Your task to perform on an android device: show emergency info Image 0: 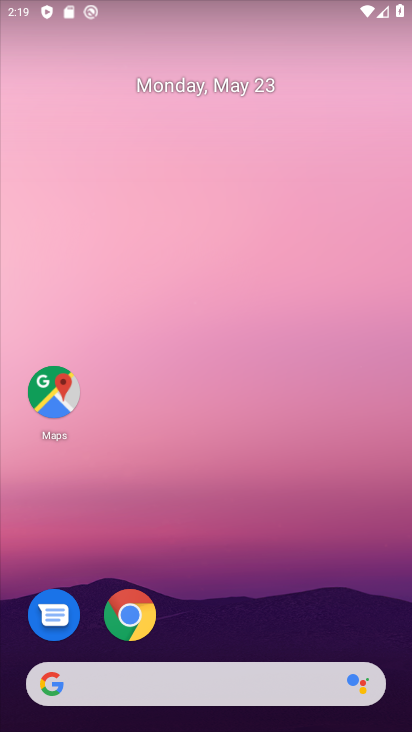
Step 0: drag from (244, 608) to (246, 4)
Your task to perform on an android device: show emergency info Image 1: 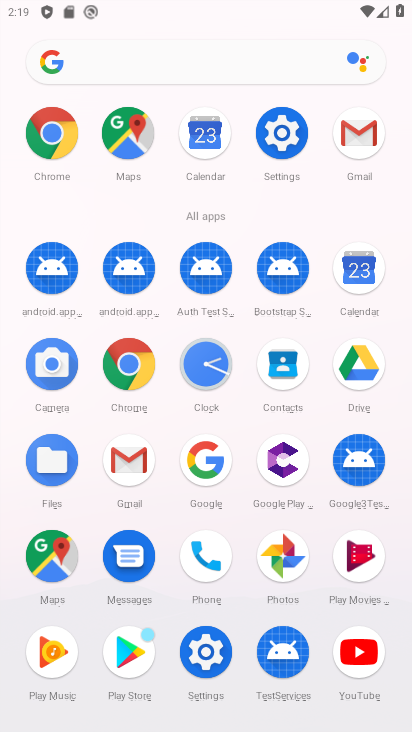
Step 1: click (281, 124)
Your task to perform on an android device: show emergency info Image 2: 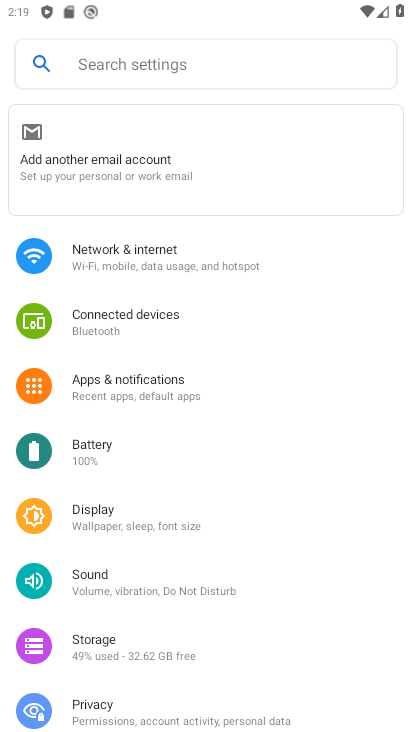
Step 2: drag from (274, 652) to (230, 83)
Your task to perform on an android device: show emergency info Image 3: 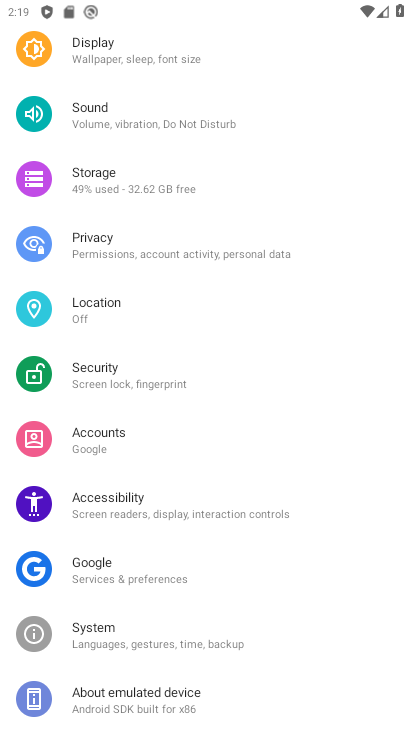
Step 3: drag from (281, 654) to (285, 408)
Your task to perform on an android device: show emergency info Image 4: 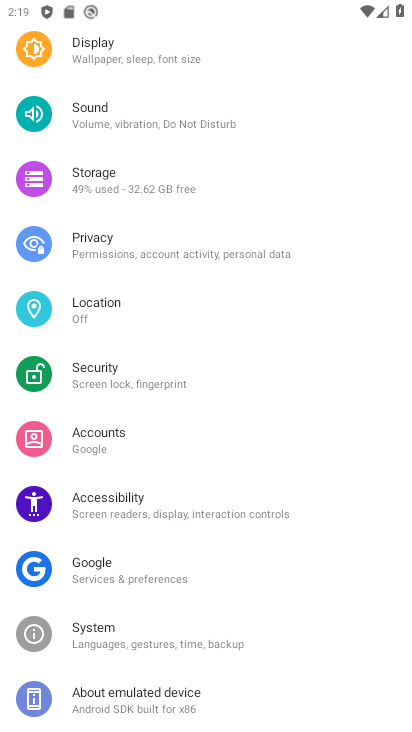
Step 4: click (122, 699)
Your task to perform on an android device: show emergency info Image 5: 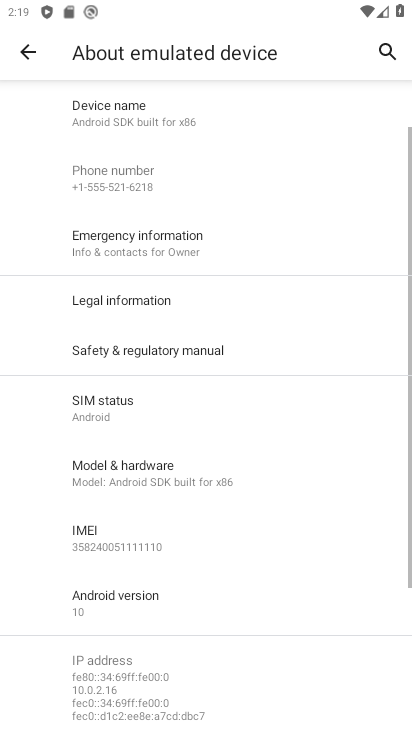
Step 5: click (124, 241)
Your task to perform on an android device: show emergency info Image 6: 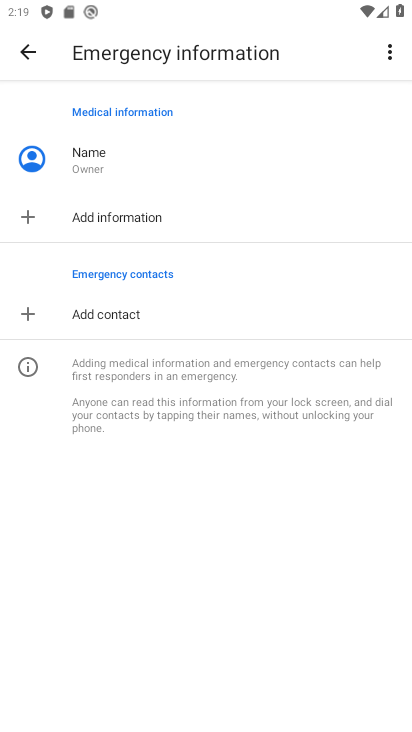
Step 6: task complete